Your task to perform on an android device: Go to Yahoo.com Image 0: 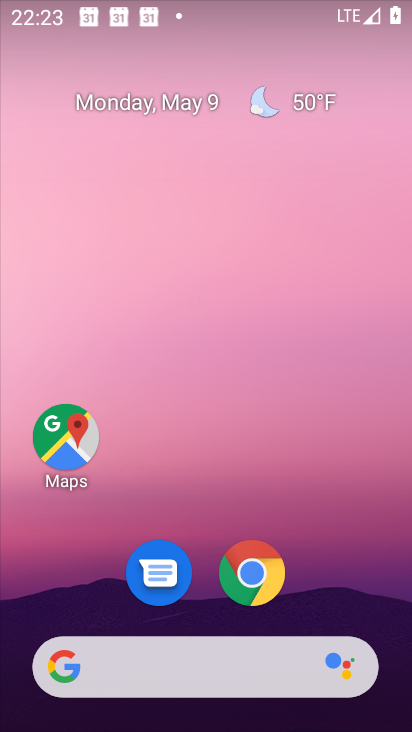
Step 0: click (248, 575)
Your task to perform on an android device: Go to Yahoo.com Image 1: 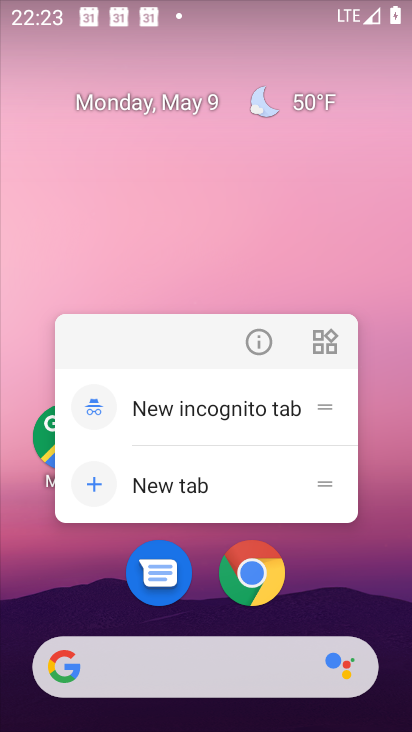
Step 1: click (245, 559)
Your task to perform on an android device: Go to Yahoo.com Image 2: 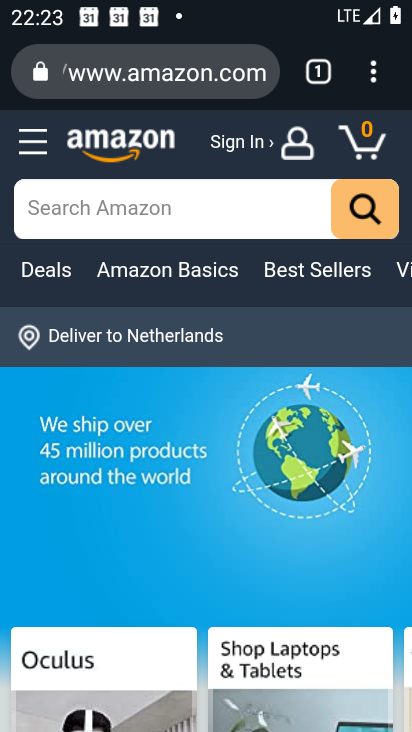
Step 2: click (196, 71)
Your task to perform on an android device: Go to Yahoo.com Image 3: 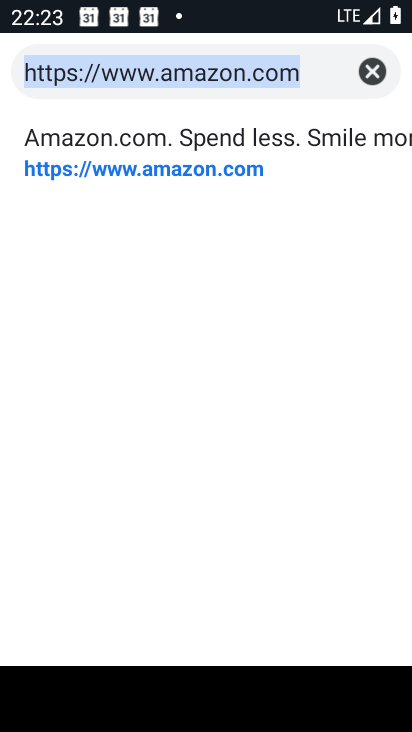
Step 3: type "yahoo.com"
Your task to perform on an android device: Go to Yahoo.com Image 4: 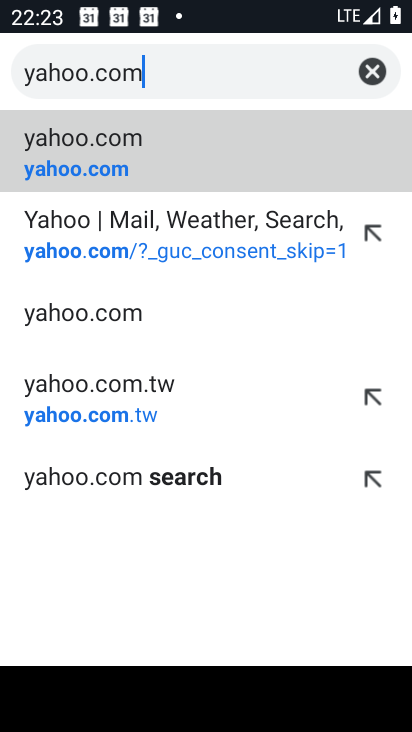
Step 4: click (92, 138)
Your task to perform on an android device: Go to Yahoo.com Image 5: 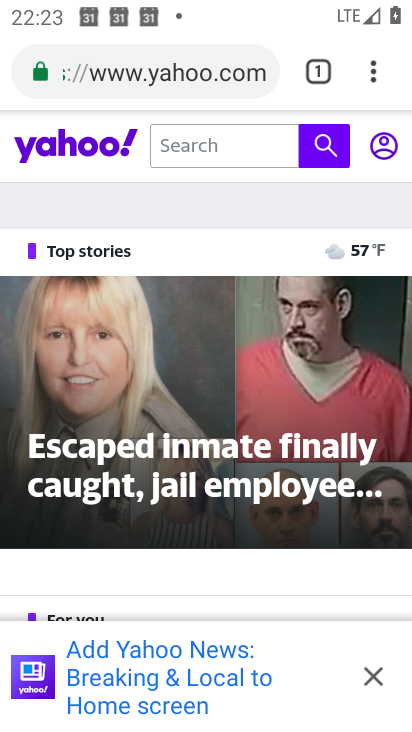
Step 5: task complete